Your task to perform on an android device: Open maps Image 0: 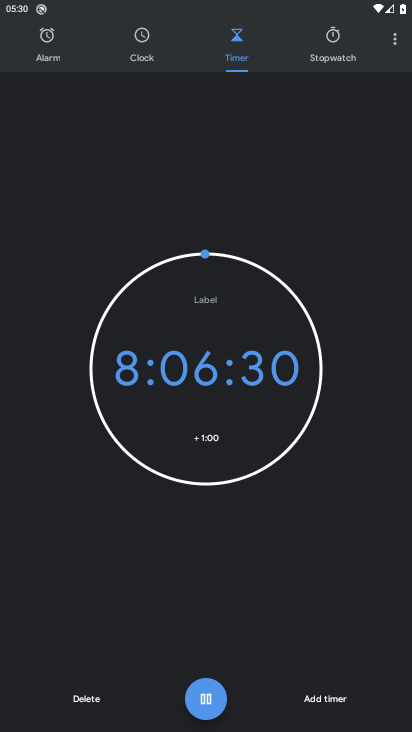
Step 0: press home button
Your task to perform on an android device: Open maps Image 1: 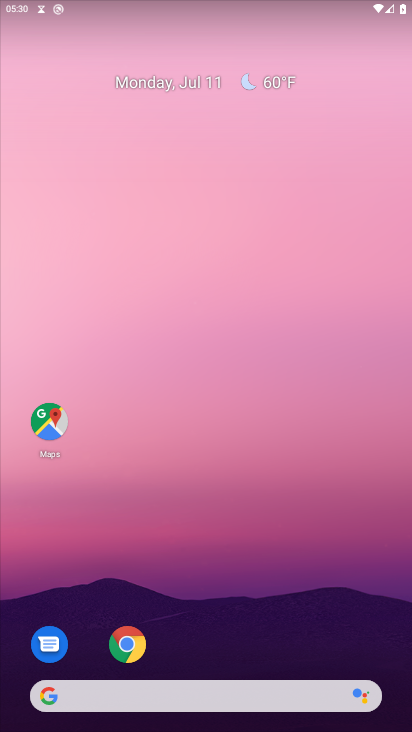
Step 1: click (36, 417)
Your task to perform on an android device: Open maps Image 2: 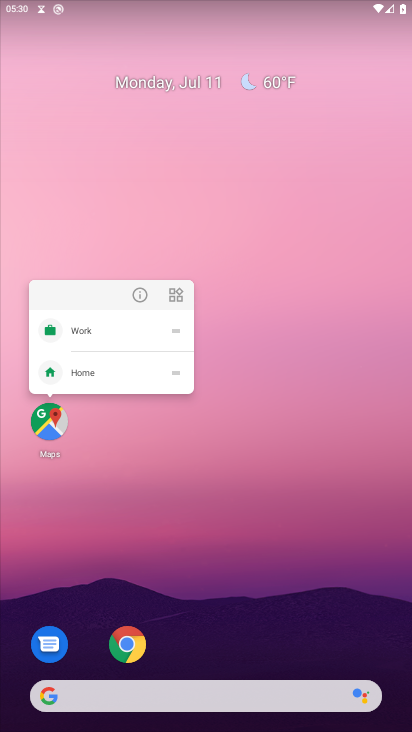
Step 2: click (45, 422)
Your task to perform on an android device: Open maps Image 3: 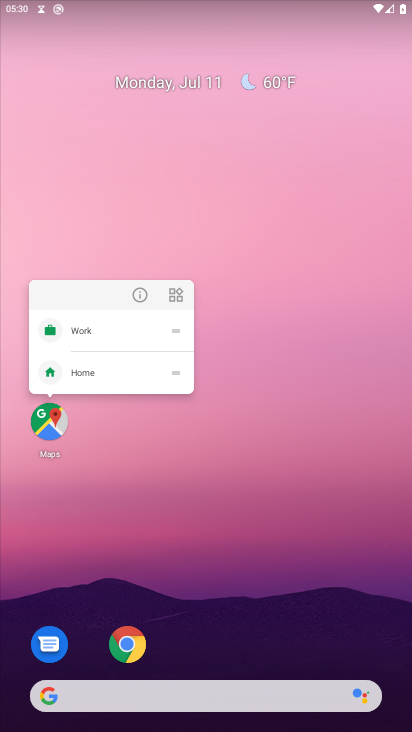
Step 3: click (52, 430)
Your task to perform on an android device: Open maps Image 4: 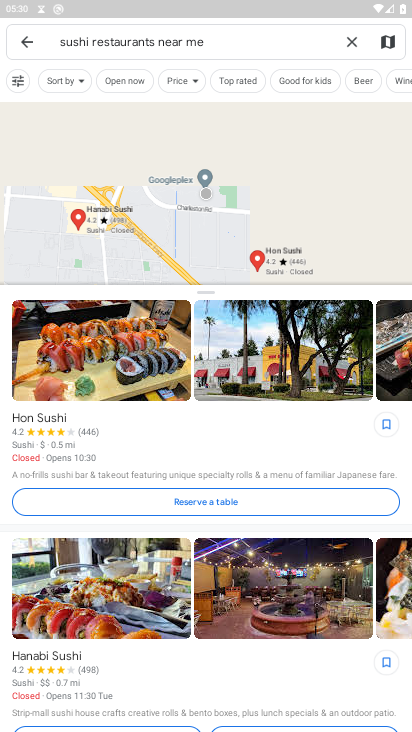
Step 4: click (351, 42)
Your task to perform on an android device: Open maps Image 5: 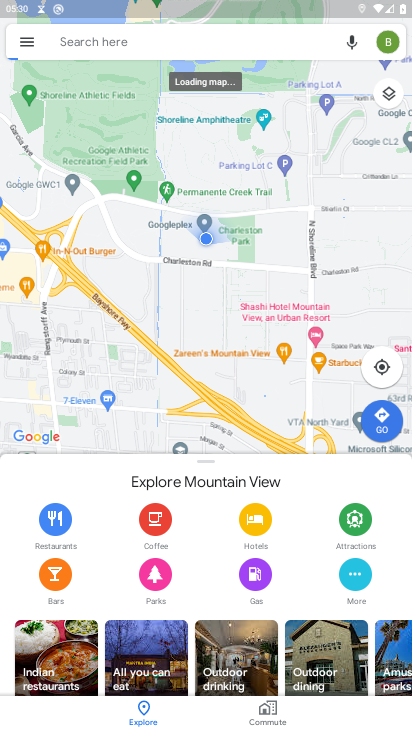
Step 5: task complete